Your task to perform on an android device: Go to sound settings Image 0: 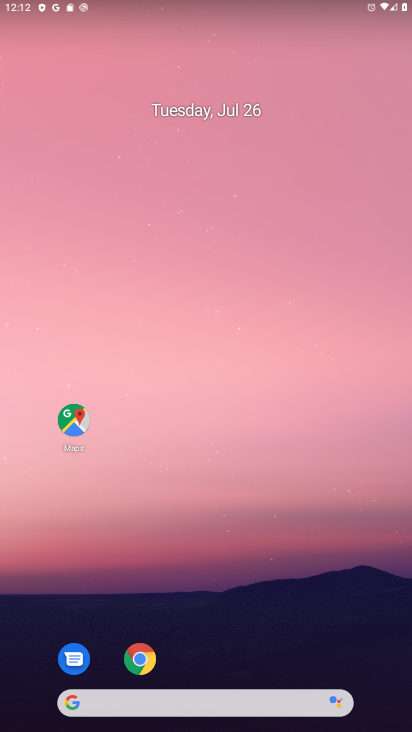
Step 0: drag from (232, 604) to (139, 83)
Your task to perform on an android device: Go to sound settings Image 1: 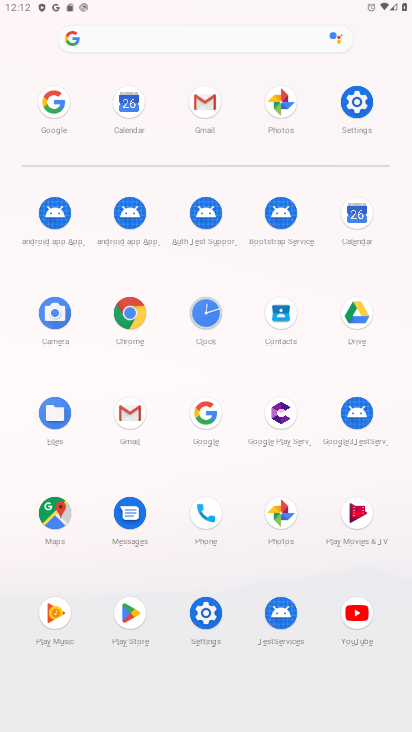
Step 1: click (354, 98)
Your task to perform on an android device: Go to sound settings Image 2: 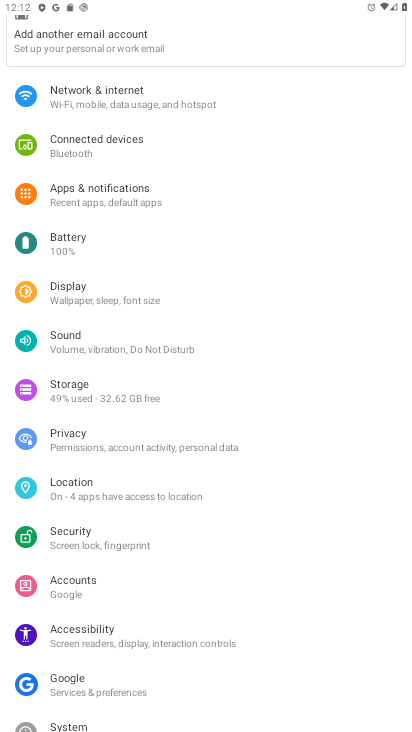
Step 2: click (63, 338)
Your task to perform on an android device: Go to sound settings Image 3: 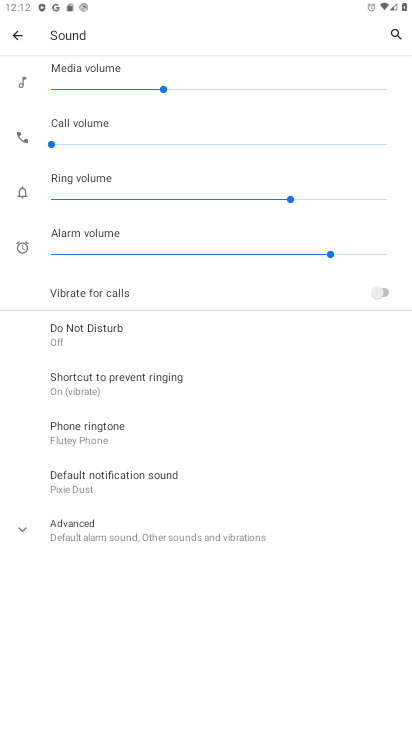
Step 3: task complete